Your task to perform on an android device: Open the calendar and show me this week's events Image 0: 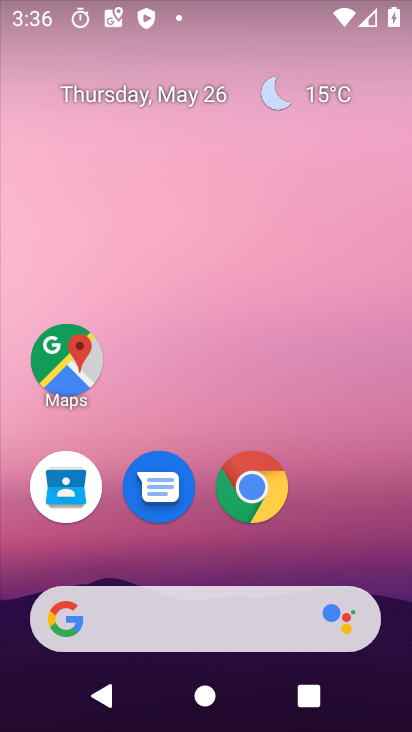
Step 0: drag from (195, 566) to (186, 153)
Your task to perform on an android device: Open the calendar and show me this week's events Image 1: 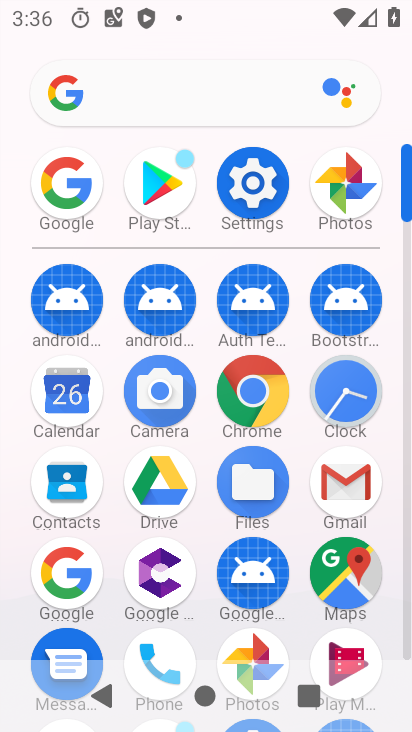
Step 1: click (84, 387)
Your task to perform on an android device: Open the calendar and show me this week's events Image 2: 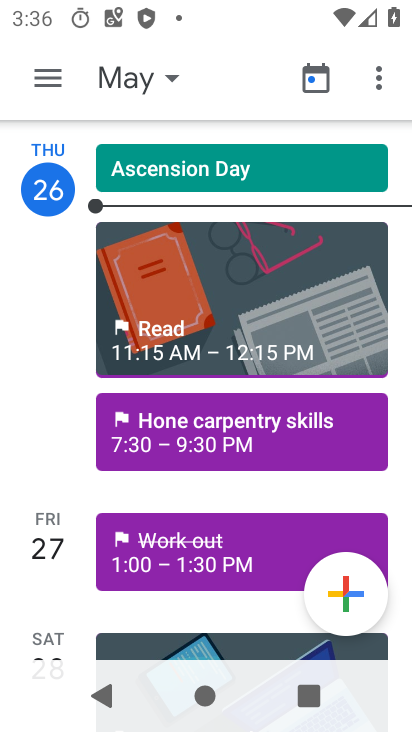
Step 2: click (173, 73)
Your task to perform on an android device: Open the calendar and show me this week's events Image 3: 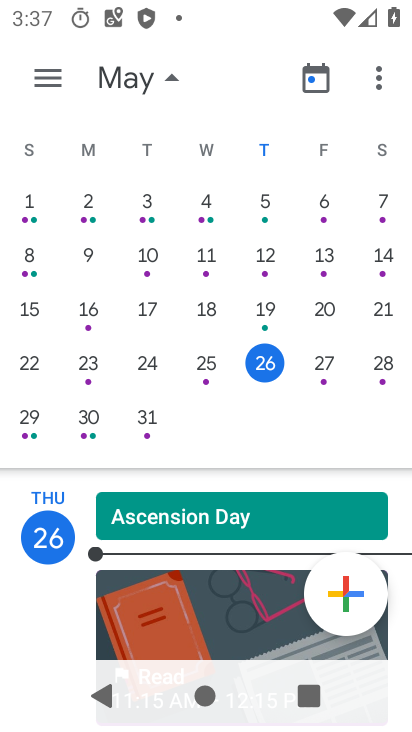
Step 3: click (390, 359)
Your task to perform on an android device: Open the calendar and show me this week's events Image 4: 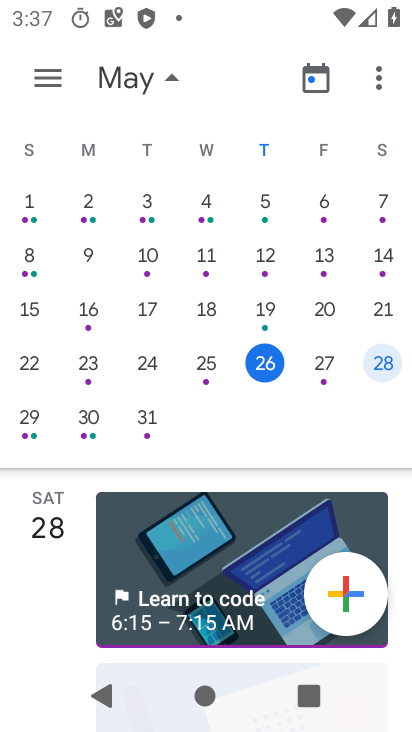
Step 4: task complete